Your task to perform on an android device: Clear the cart on amazon.com. Search for logitech g903 on amazon.com, select the first entry, add it to the cart, then select checkout. Image 0: 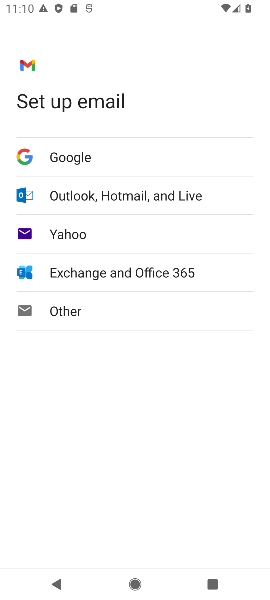
Step 0: task complete